Your task to perform on an android device: set default search engine in the chrome app Image 0: 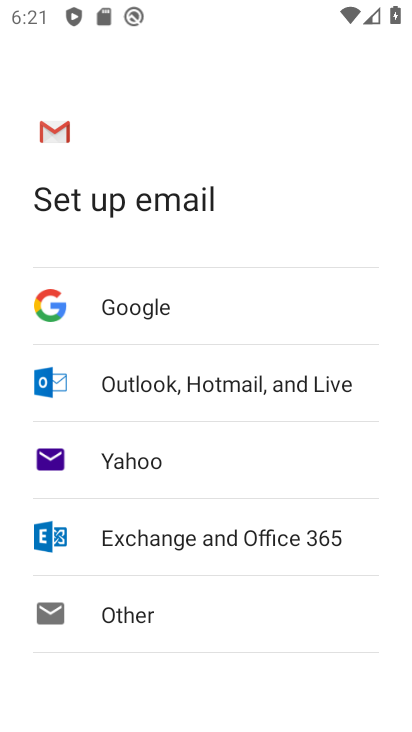
Step 0: press back button
Your task to perform on an android device: set default search engine in the chrome app Image 1: 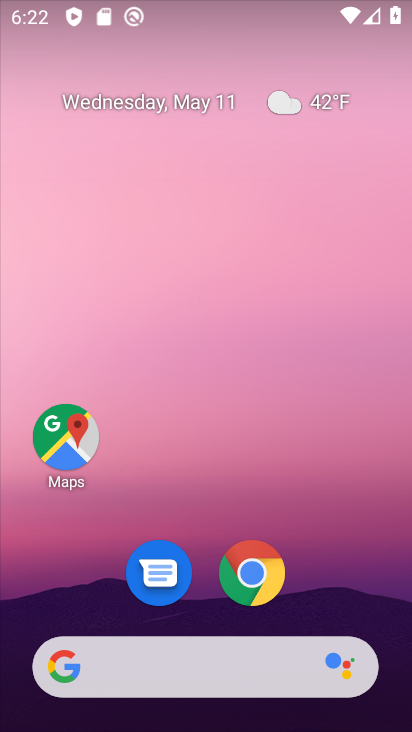
Step 1: drag from (337, 611) to (273, 240)
Your task to perform on an android device: set default search engine in the chrome app Image 2: 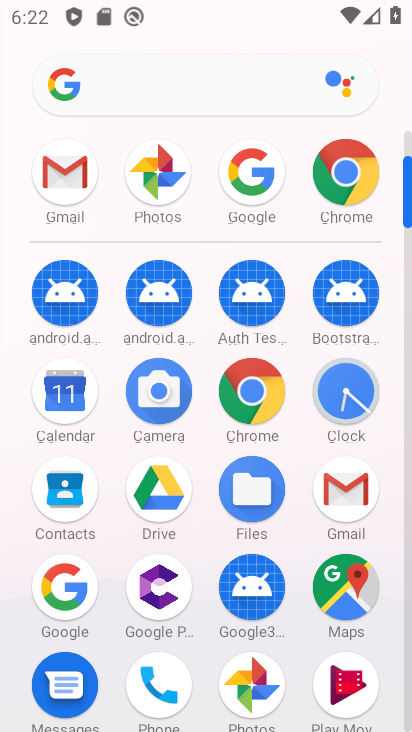
Step 2: click (360, 212)
Your task to perform on an android device: set default search engine in the chrome app Image 3: 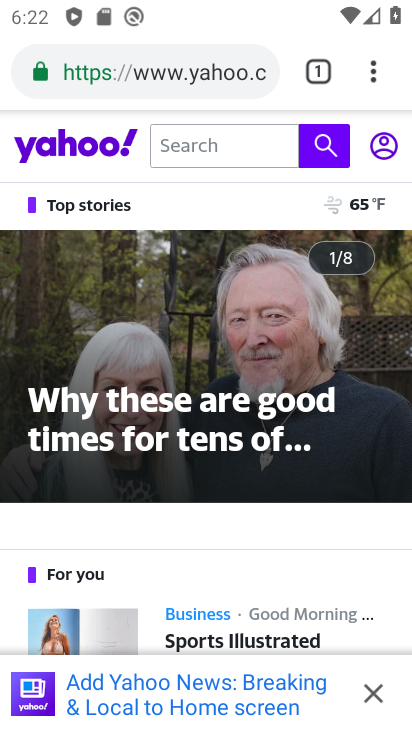
Step 3: click (376, 74)
Your task to perform on an android device: set default search engine in the chrome app Image 4: 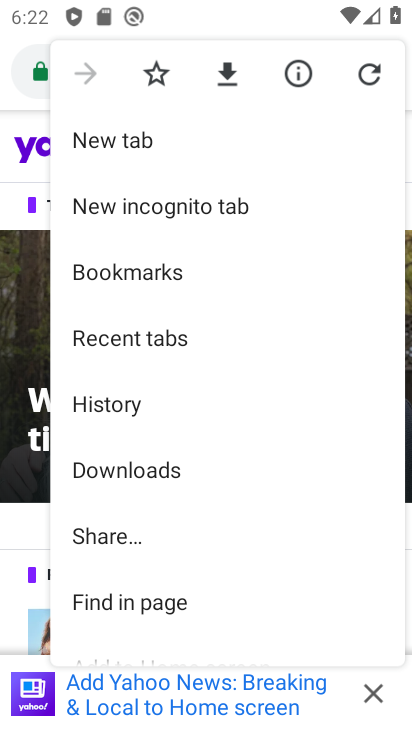
Step 4: drag from (176, 473) to (184, 246)
Your task to perform on an android device: set default search engine in the chrome app Image 5: 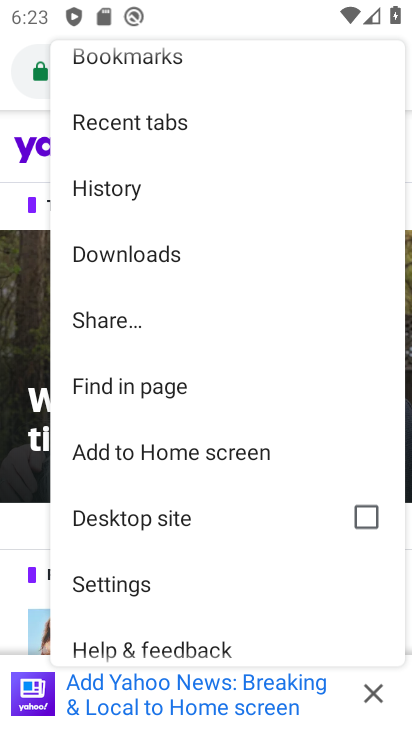
Step 5: click (143, 596)
Your task to perform on an android device: set default search engine in the chrome app Image 6: 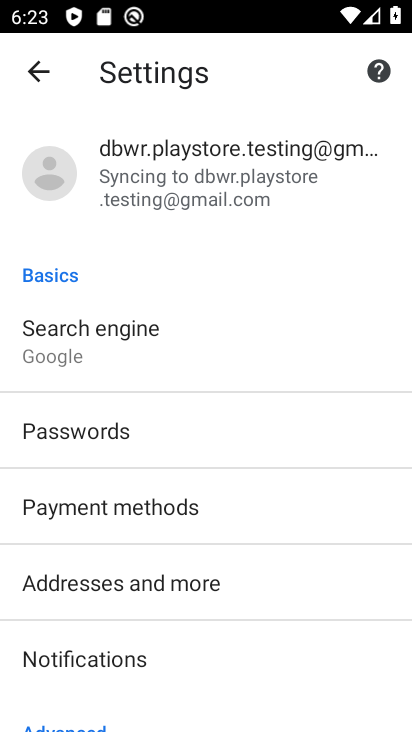
Step 6: click (82, 361)
Your task to perform on an android device: set default search engine in the chrome app Image 7: 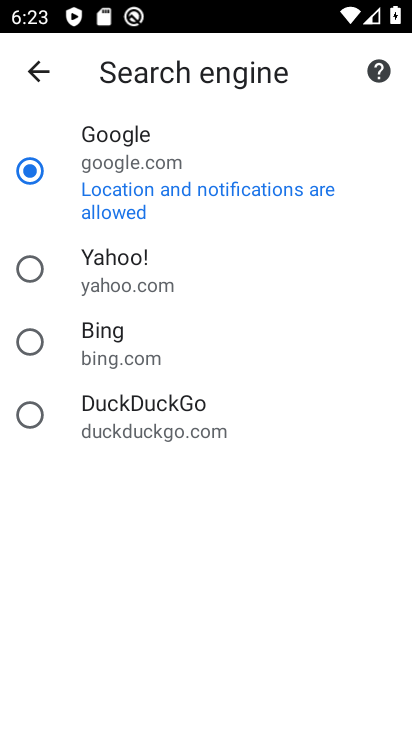
Step 7: click (33, 274)
Your task to perform on an android device: set default search engine in the chrome app Image 8: 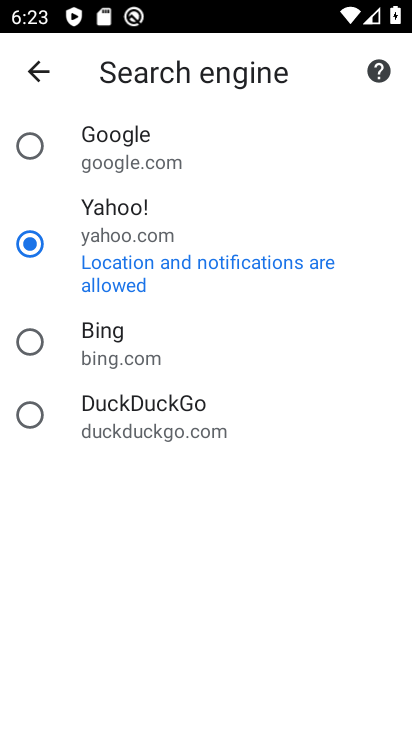
Step 8: task complete